Your task to perform on an android device: Open settings Image 0: 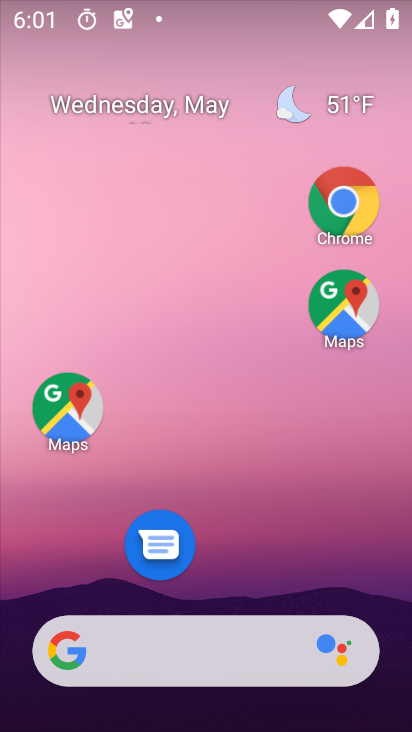
Step 0: drag from (248, 575) to (389, 90)
Your task to perform on an android device: Open settings Image 1: 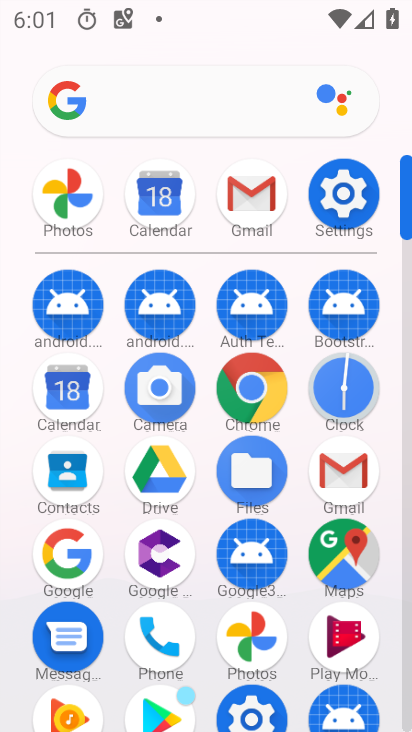
Step 1: click (341, 215)
Your task to perform on an android device: Open settings Image 2: 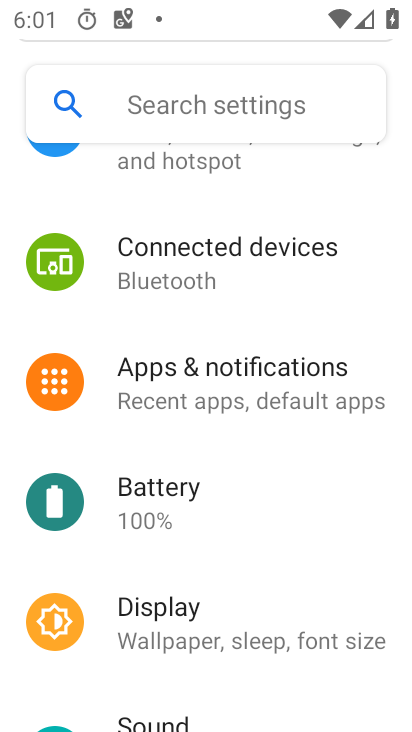
Step 2: task complete